Your task to perform on an android device: Open Google Chrome Image 0: 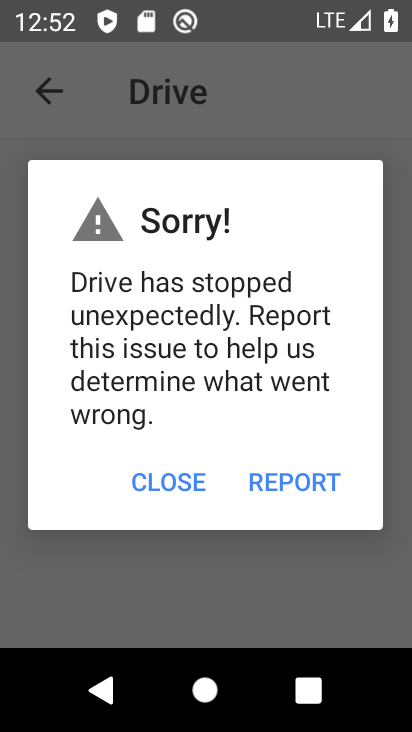
Step 0: press home button
Your task to perform on an android device: Open Google Chrome Image 1: 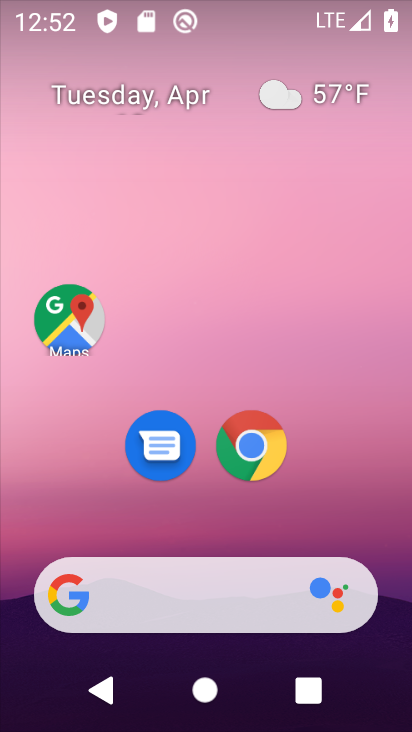
Step 1: click (267, 435)
Your task to perform on an android device: Open Google Chrome Image 2: 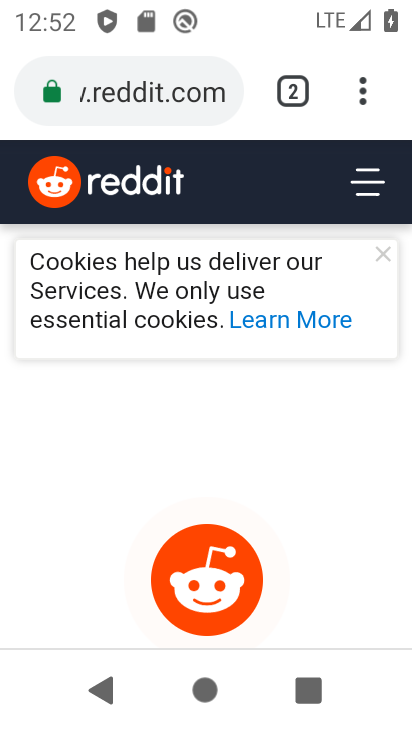
Step 2: task complete